Your task to perform on an android device: What is the recent news? Image 0: 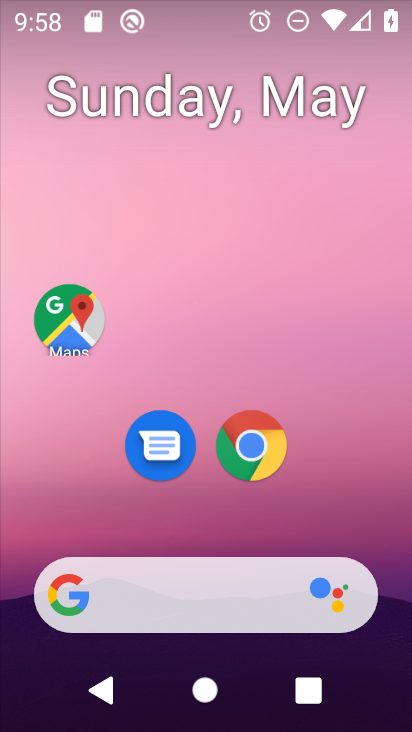
Step 0: drag from (242, 440) to (251, 101)
Your task to perform on an android device: What is the recent news? Image 1: 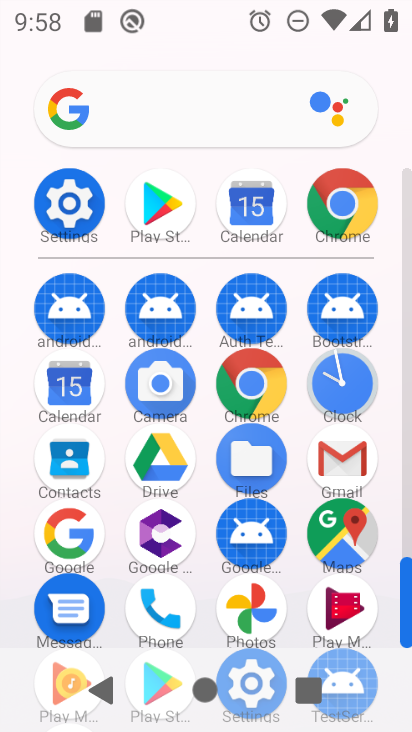
Step 1: click (72, 543)
Your task to perform on an android device: What is the recent news? Image 2: 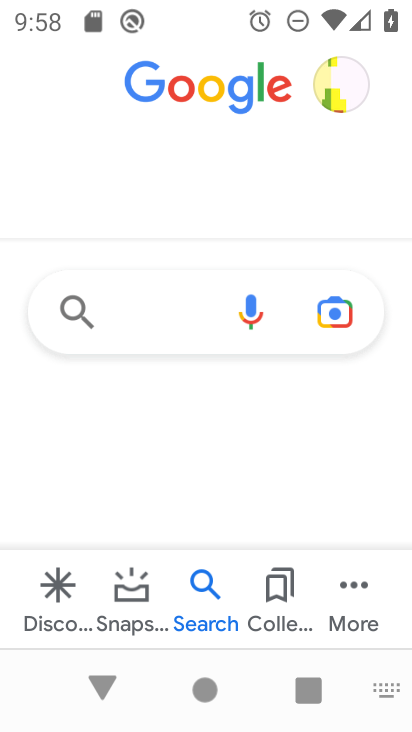
Step 2: click (71, 606)
Your task to perform on an android device: What is the recent news? Image 3: 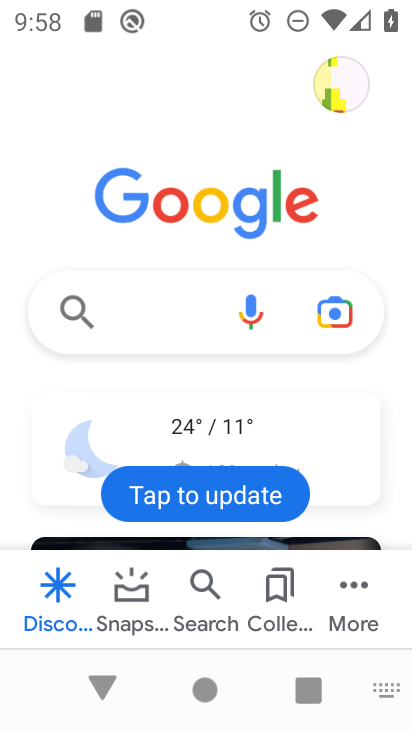
Step 3: click (184, 313)
Your task to perform on an android device: What is the recent news? Image 4: 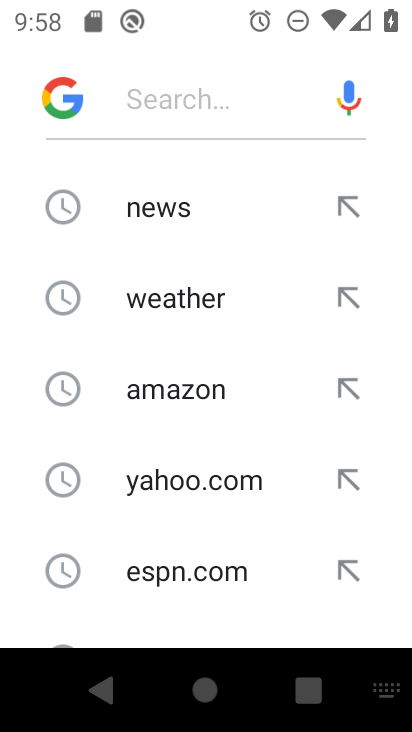
Step 4: type "recent news"
Your task to perform on an android device: What is the recent news? Image 5: 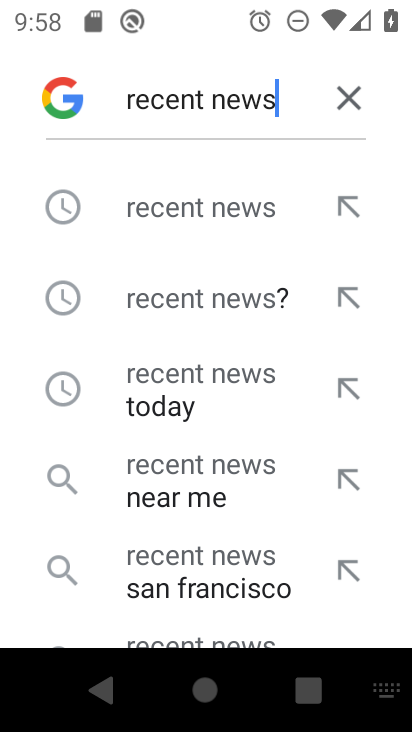
Step 5: click (220, 222)
Your task to perform on an android device: What is the recent news? Image 6: 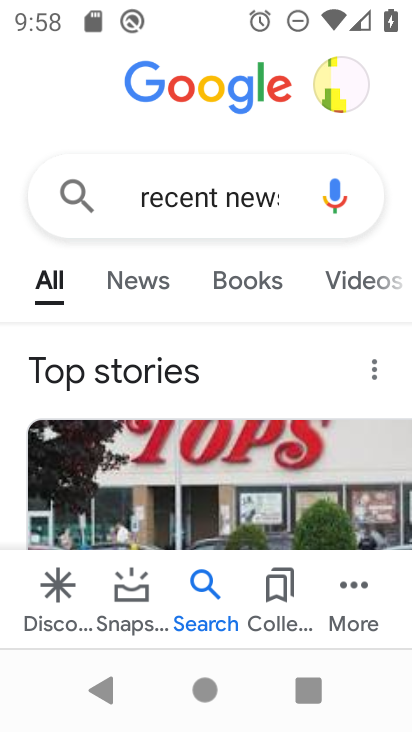
Step 6: task complete